Your task to perform on an android device: Go to Yahoo.com Image 0: 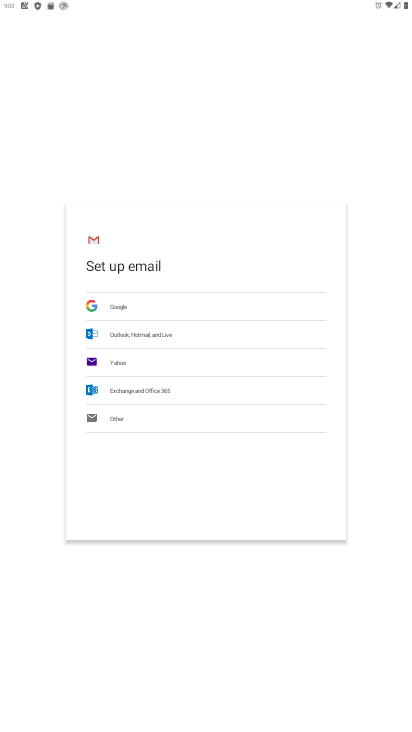
Step 0: press home button
Your task to perform on an android device: Go to Yahoo.com Image 1: 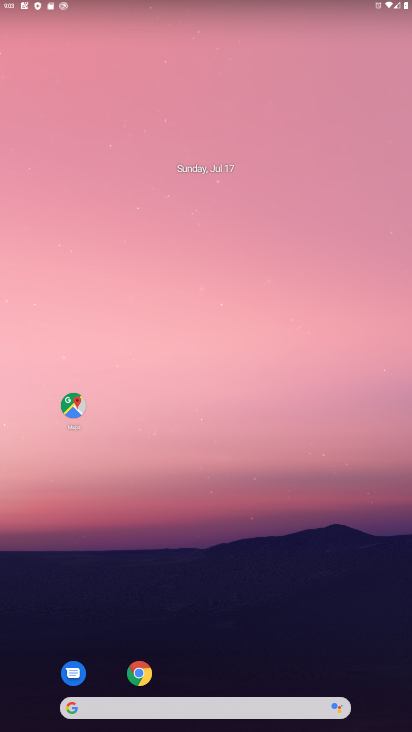
Step 1: click (141, 680)
Your task to perform on an android device: Go to Yahoo.com Image 2: 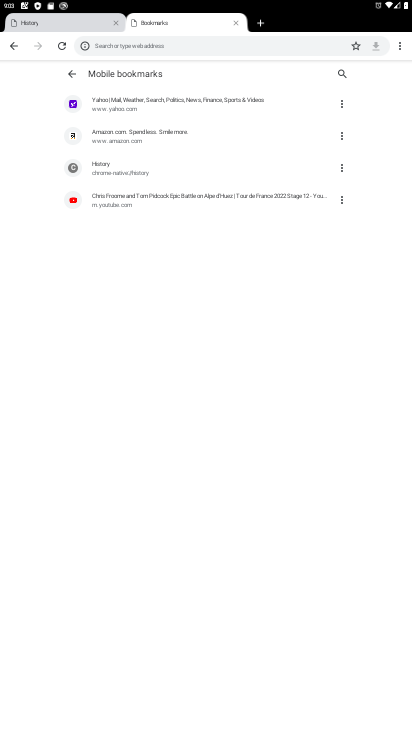
Step 2: click (133, 109)
Your task to perform on an android device: Go to Yahoo.com Image 3: 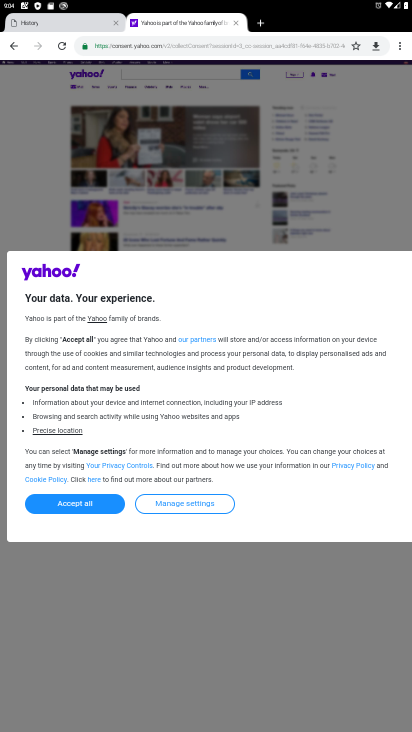
Step 3: task complete